Your task to perform on an android device: turn on showing notifications on the lock screen Image 0: 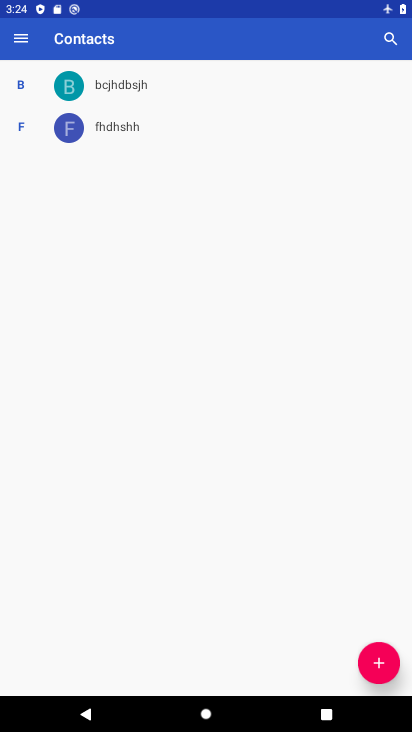
Step 0: press home button
Your task to perform on an android device: turn on showing notifications on the lock screen Image 1: 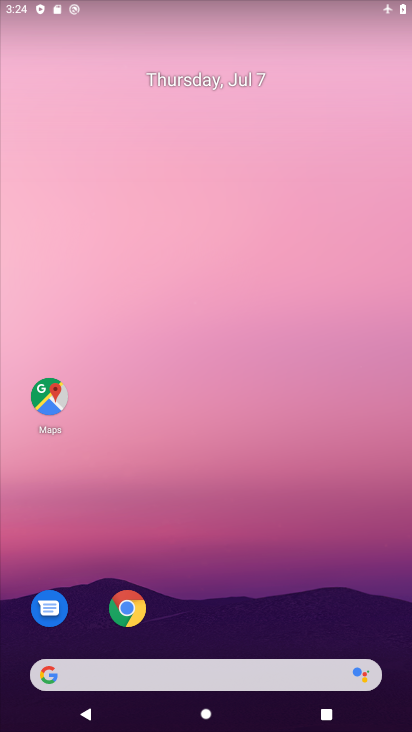
Step 1: drag from (313, 611) to (219, 186)
Your task to perform on an android device: turn on showing notifications on the lock screen Image 2: 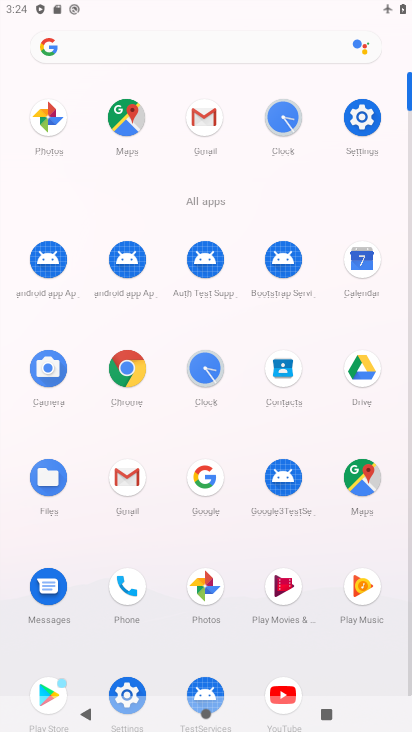
Step 2: click (364, 122)
Your task to perform on an android device: turn on showing notifications on the lock screen Image 3: 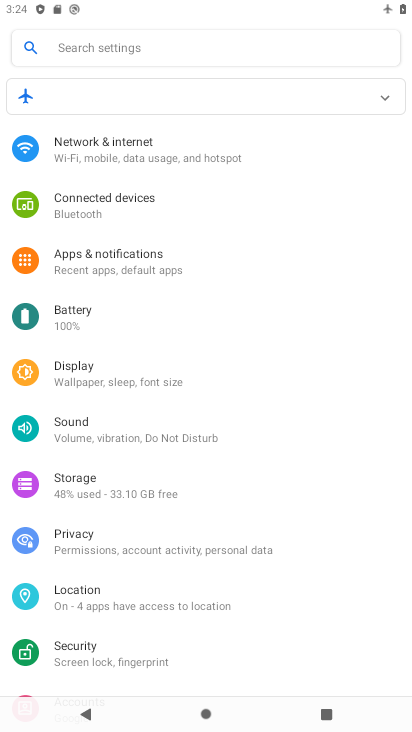
Step 3: click (182, 243)
Your task to perform on an android device: turn on showing notifications on the lock screen Image 4: 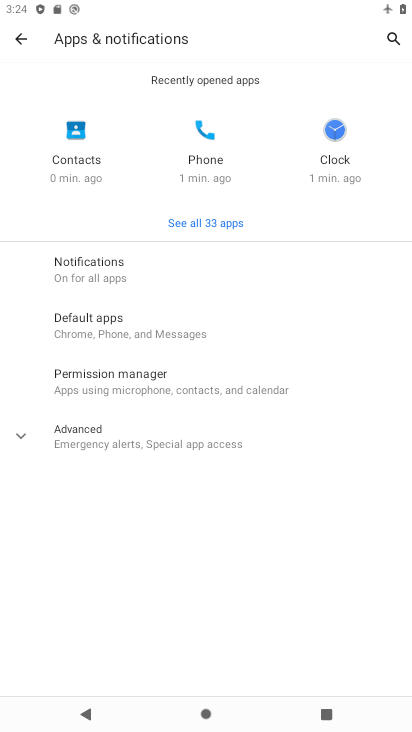
Step 4: click (191, 278)
Your task to perform on an android device: turn on showing notifications on the lock screen Image 5: 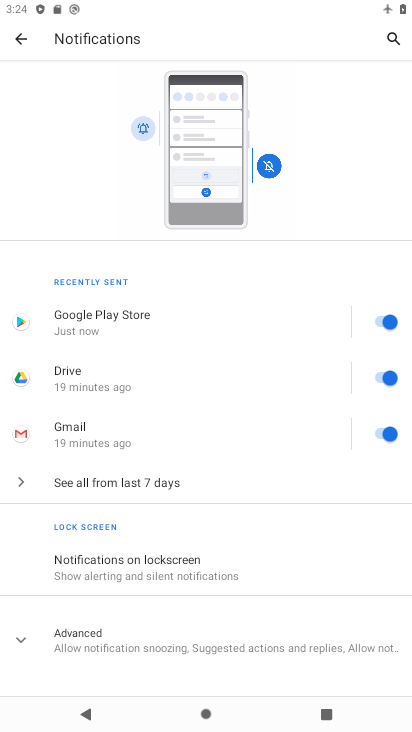
Step 5: drag from (193, 615) to (179, 416)
Your task to perform on an android device: turn on showing notifications on the lock screen Image 6: 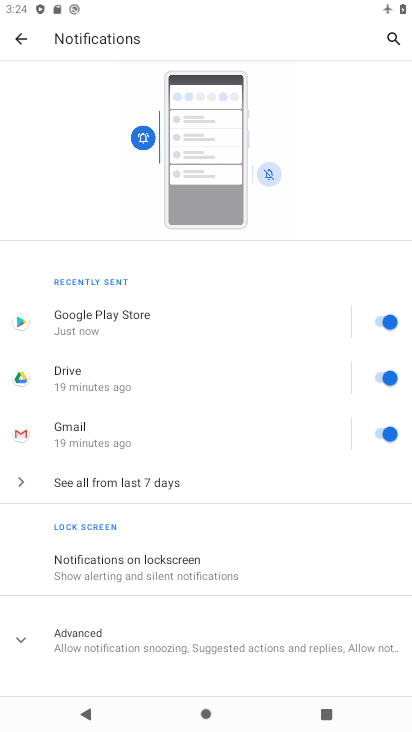
Step 6: click (210, 556)
Your task to perform on an android device: turn on showing notifications on the lock screen Image 7: 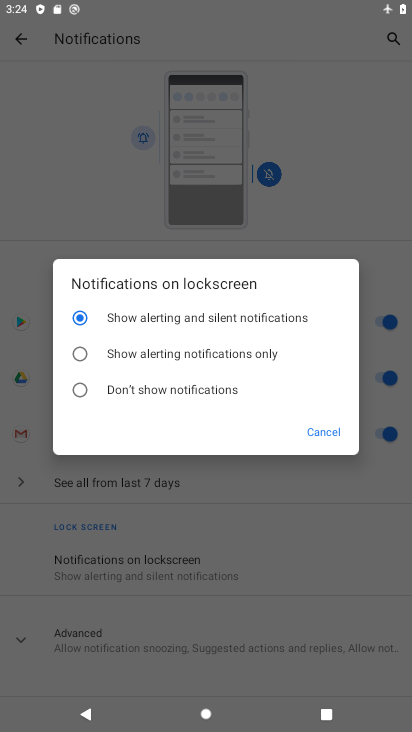
Step 7: task complete